Your task to perform on an android device: toggle sleep mode Image 0: 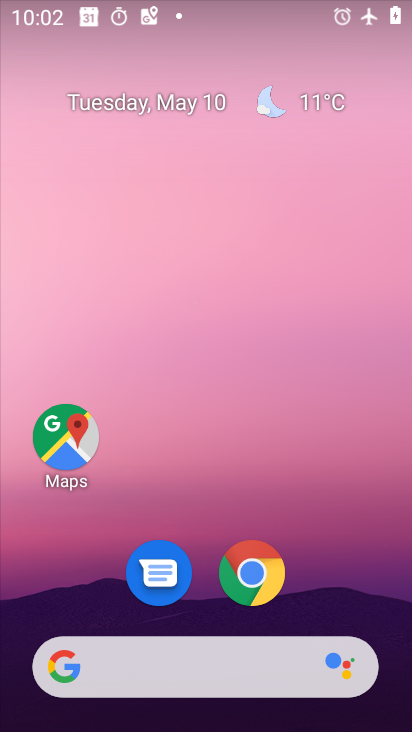
Step 0: drag from (356, 625) to (361, 8)
Your task to perform on an android device: toggle sleep mode Image 1: 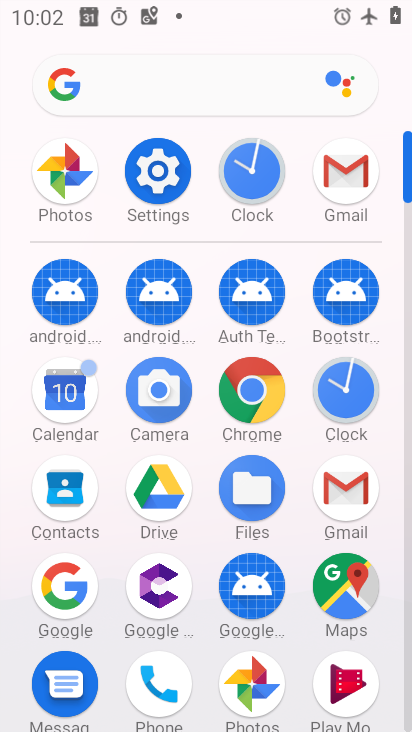
Step 1: click (165, 157)
Your task to perform on an android device: toggle sleep mode Image 2: 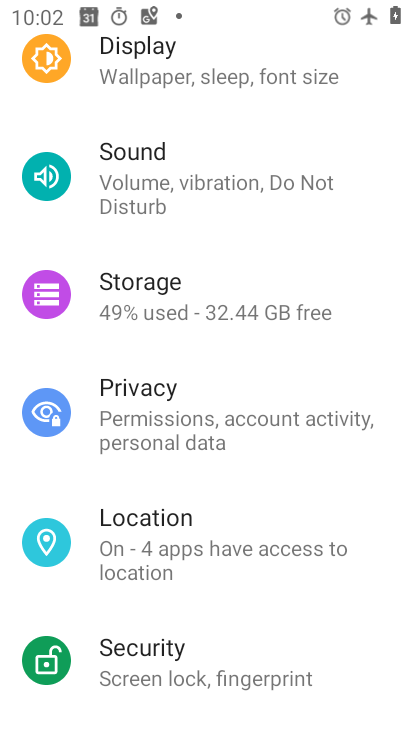
Step 2: click (131, 80)
Your task to perform on an android device: toggle sleep mode Image 3: 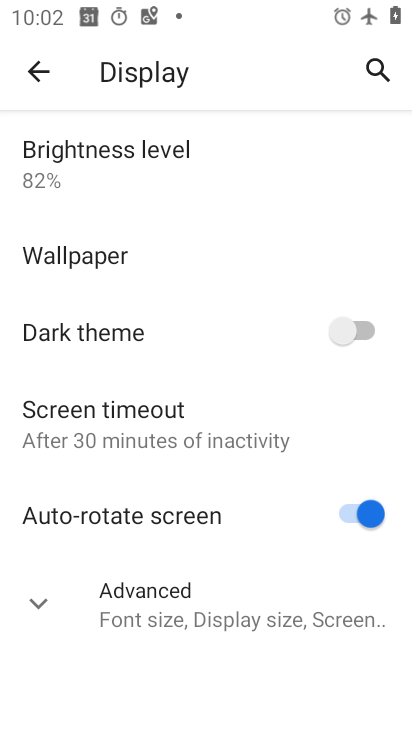
Step 3: click (45, 608)
Your task to perform on an android device: toggle sleep mode Image 4: 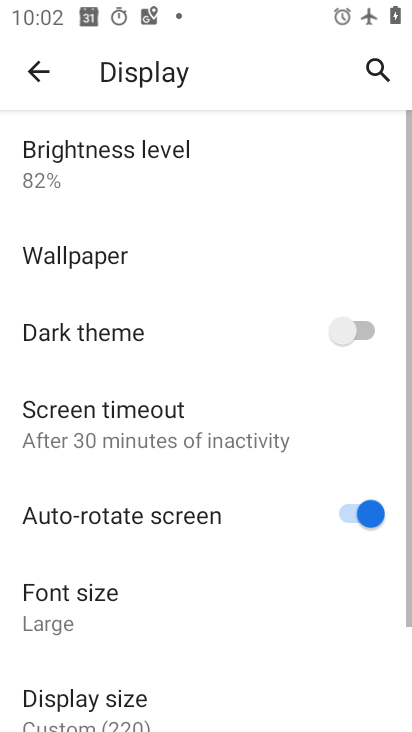
Step 4: task complete